Your task to perform on an android device: Search for a 100 ft extension cord Image 0: 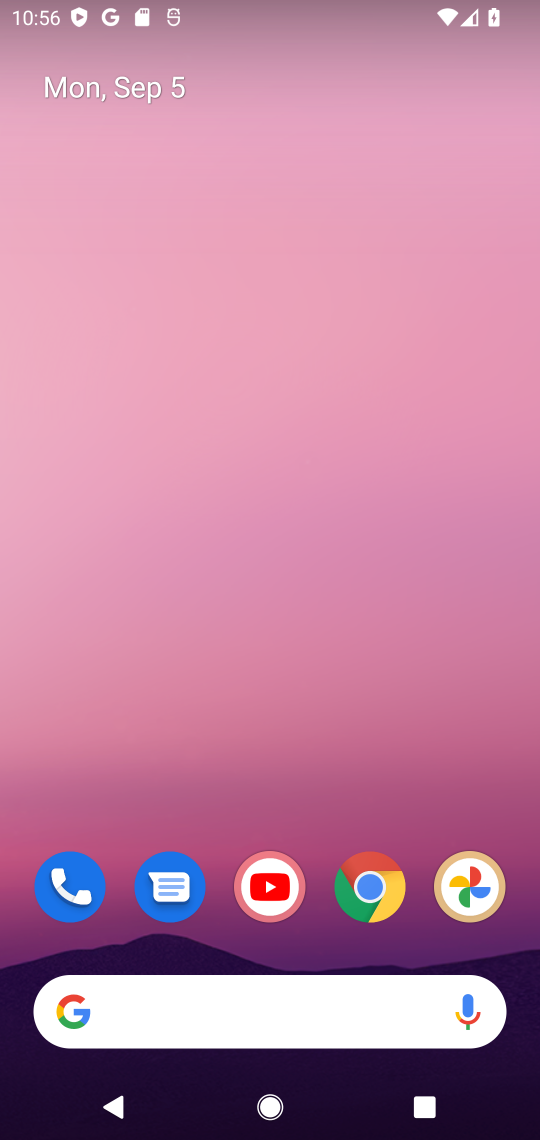
Step 0: click (378, 899)
Your task to perform on an android device: Search for a 100 ft extension cord Image 1: 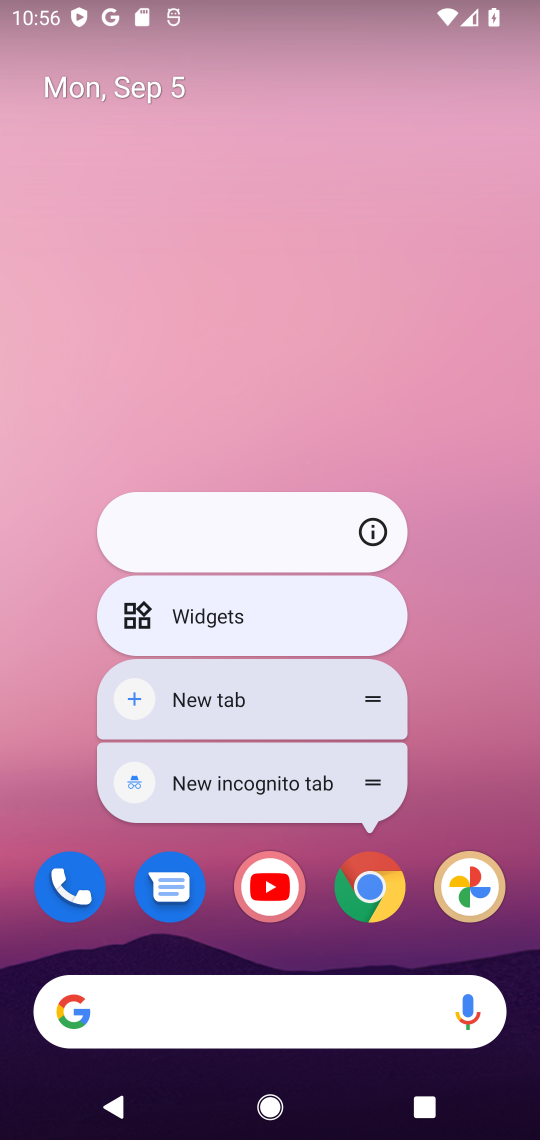
Step 1: click (348, 888)
Your task to perform on an android device: Search for a 100 ft extension cord Image 2: 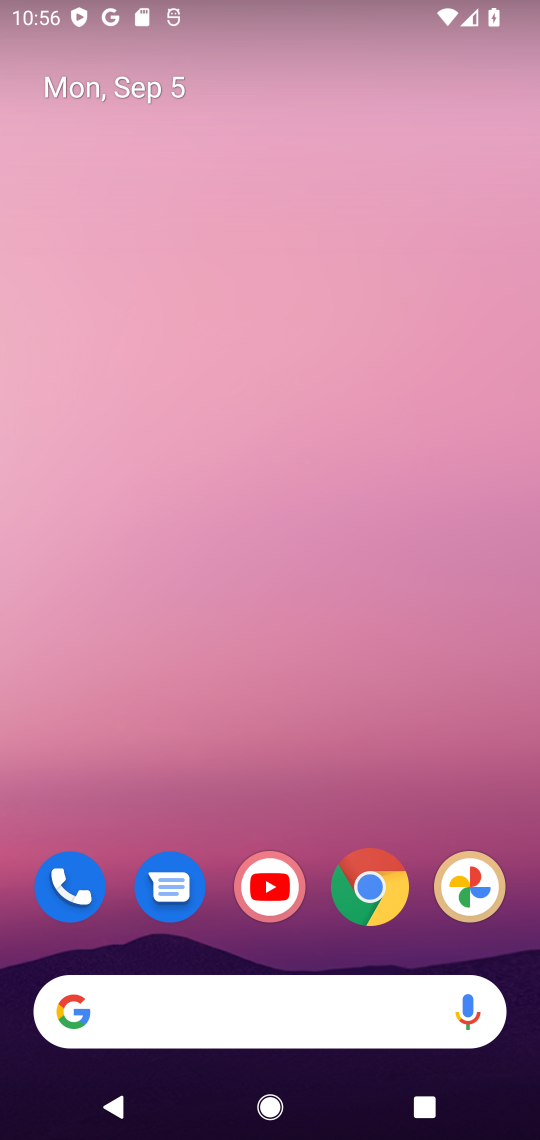
Step 2: click (348, 888)
Your task to perform on an android device: Search for a 100 ft extension cord Image 3: 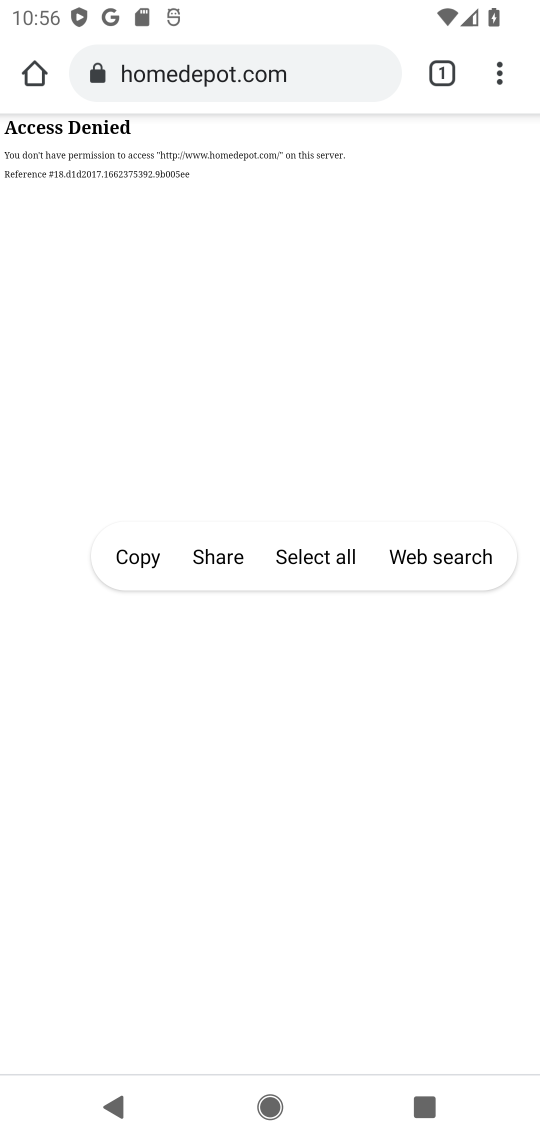
Step 3: click (277, 79)
Your task to perform on an android device: Search for a 100 ft extension cord Image 4: 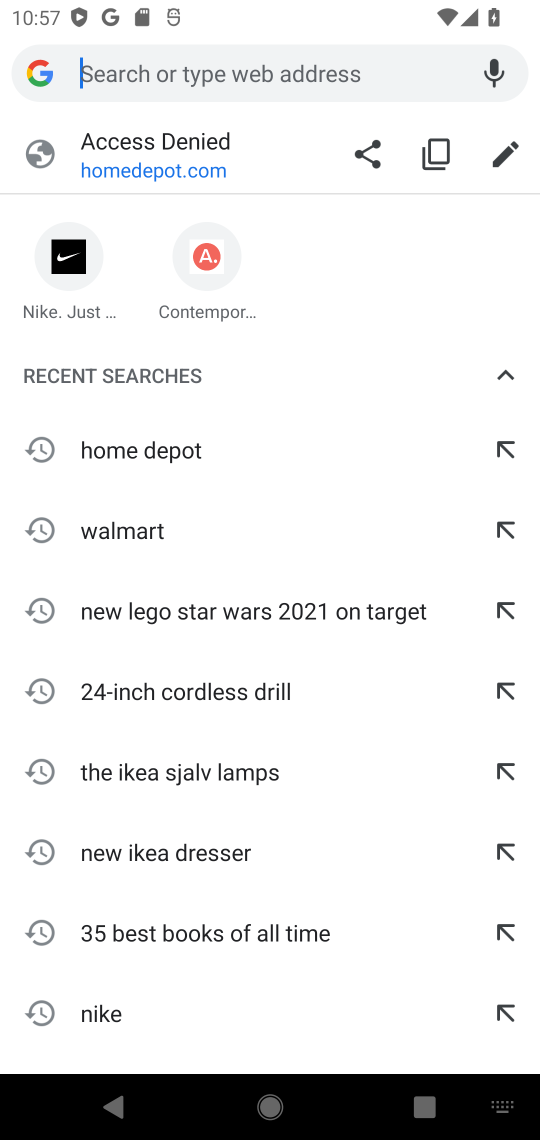
Step 4: type "100 ft extension cord"
Your task to perform on an android device: Search for a 100 ft extension cord Image 5: 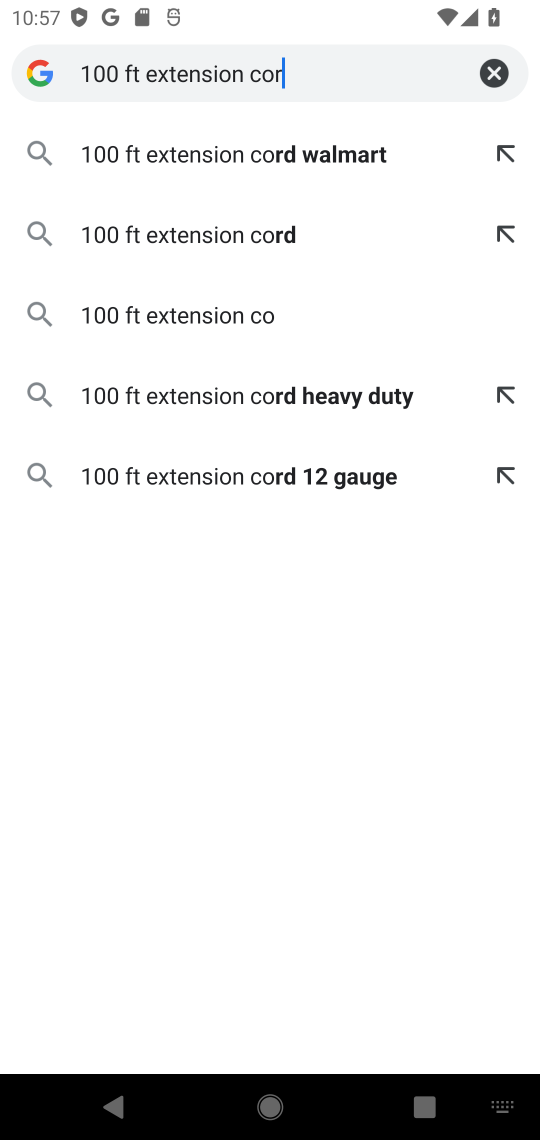
Step 5: press enter
Your task to perform on an android device: Search for a 100 ft extension cord Image 6: 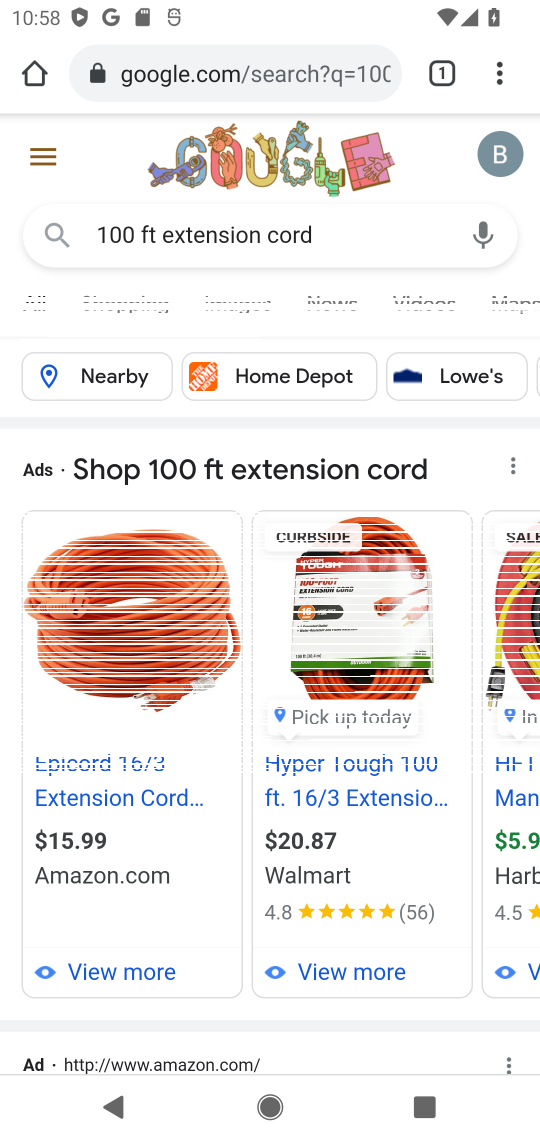
Step 6: press enter
Your task to perform on an android device: Search for a 100 ft extension cord Image 7: 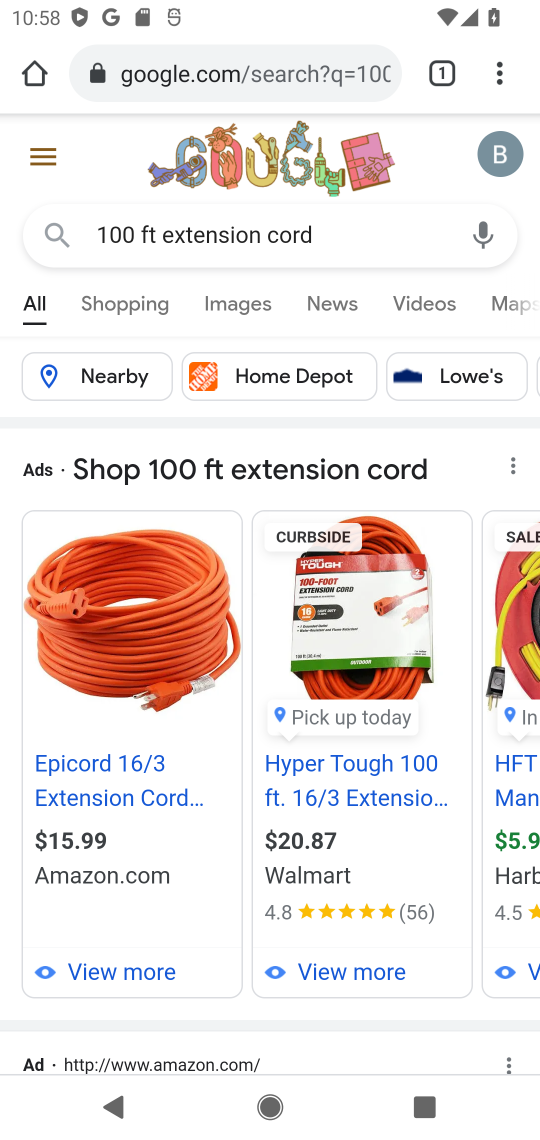
Step 7: task complete